Your task to perform on an android device: Open internet settings Image 0: 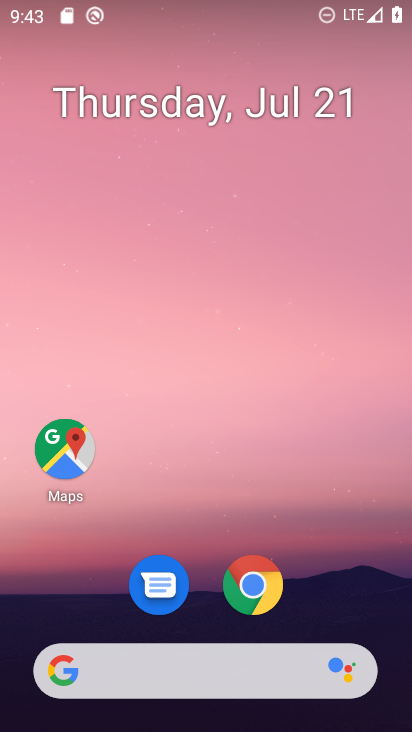
Step 0: drag from (319, 597) to (315, 67)
Your task to perform on an android device: Open internet settings Image 1: 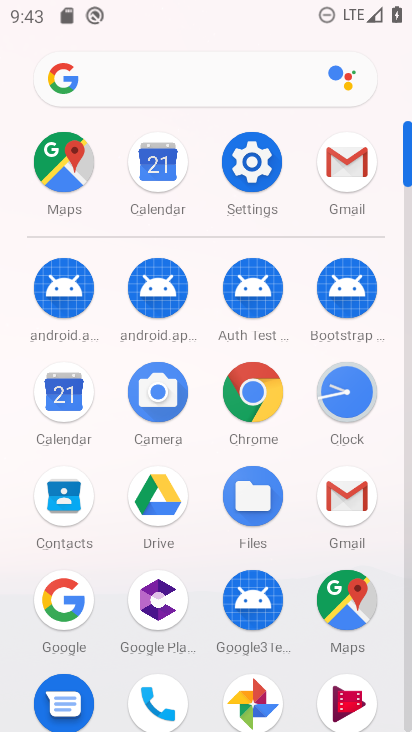
Step 1: click (258, 160)
Your task to perform on an android device: Open internet settings Image 2: 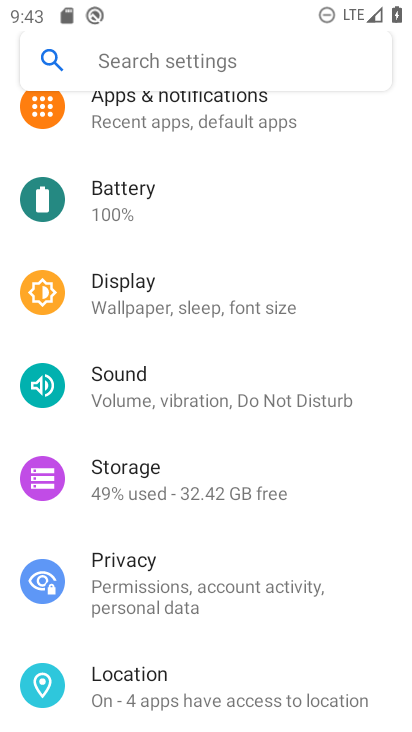
Step 2: drag from (230, 230) to (227, 623)
Your task to perform on an android device: Open internet settings Image 3: 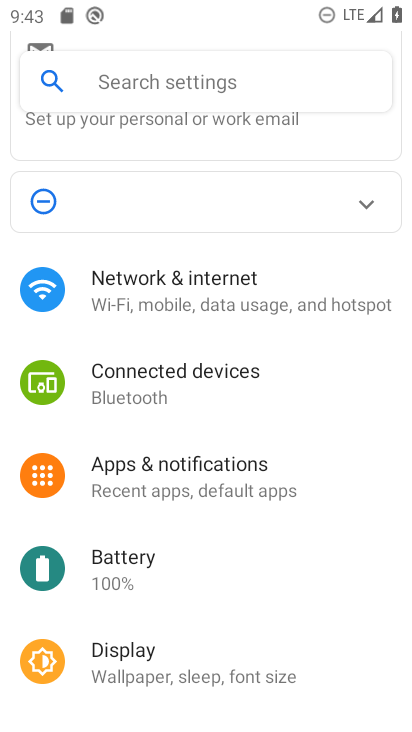
Step 3: click (235, 291)
Your task to perform on an android device: Open internet settings Image 4: 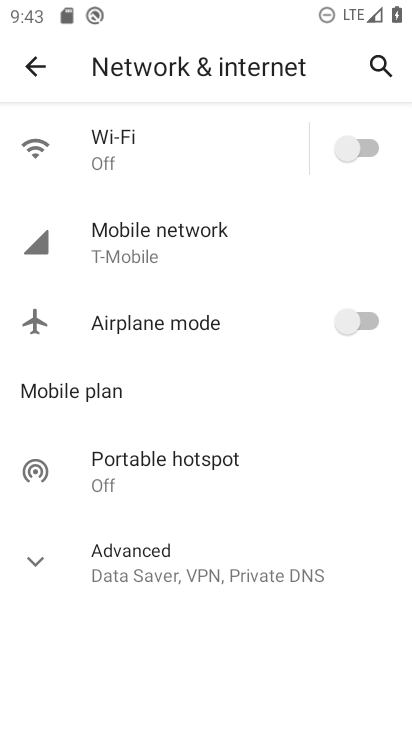
Step 4: task complete